Your task to perform on an android device: Find coffee shops on Maps Image 0: 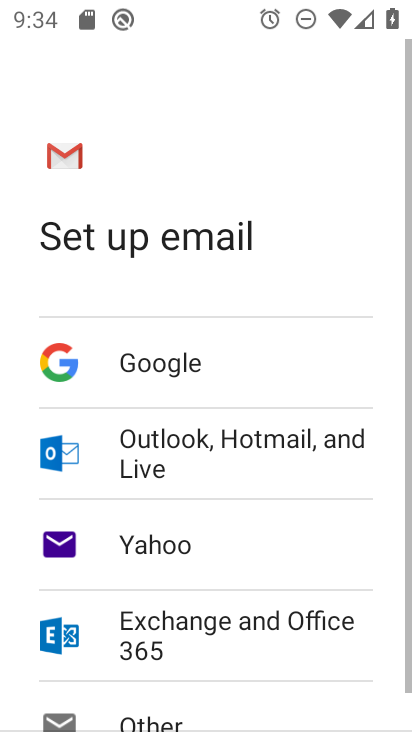
Step 0: press home button
Your task to perform on an android device: Find coffee shops on Maps Image 1: 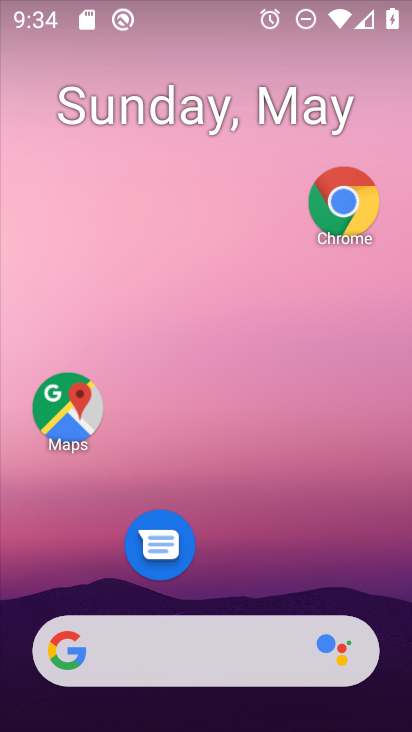
Step 1: click (58, 391)
Your task to perform on an android device: Find coffee shops on Maps Image 2: 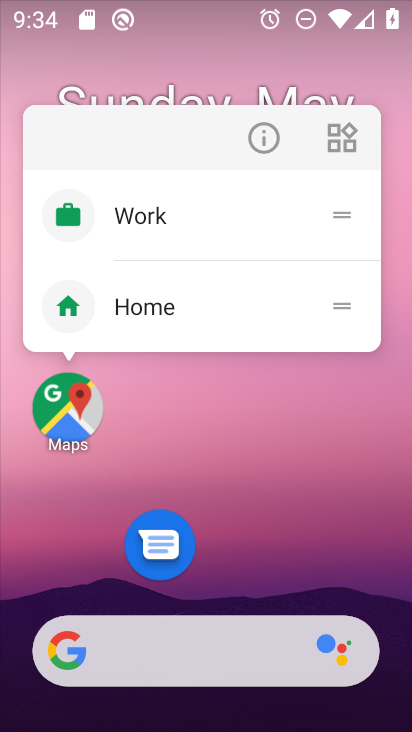
Step 2: click (58, 390)
Your task to perform on an android device: Find coffee shops on Maps Image 3: 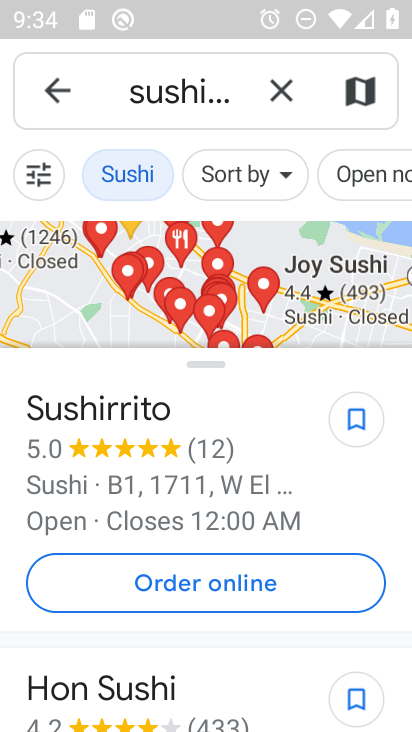
Step 3: click (289, 87)
Your task to perform on an android device: Find coffee shops on Maps Image 4: 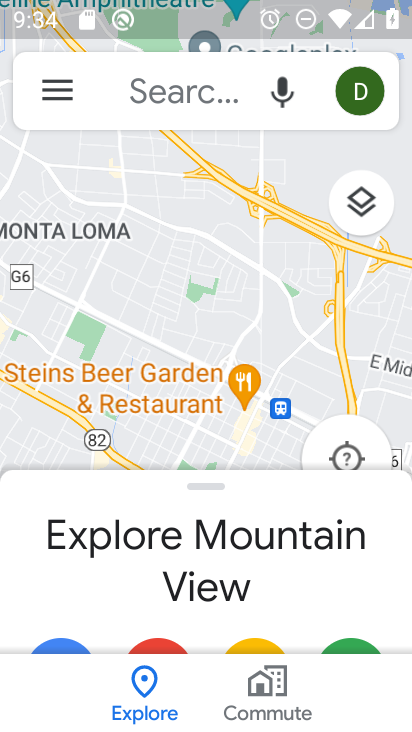
Step 4: click (205, 93)
Your task to perform on an android device: Find coffee shops on Maps Image 5: 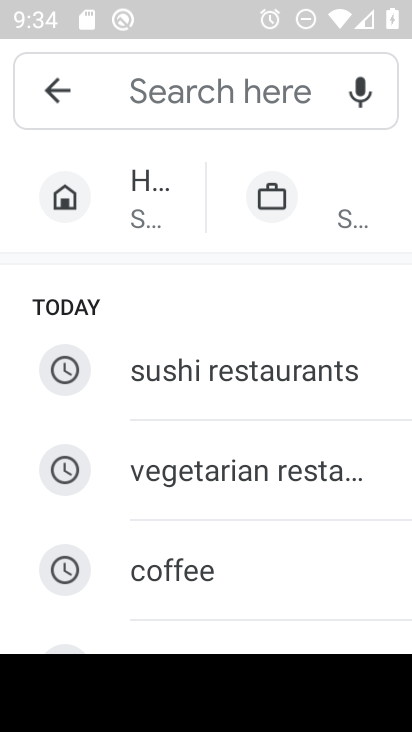
Step 5: type "coffee shop"
Your task to perform on an android device: Find coffee shops on Maps Image 6: 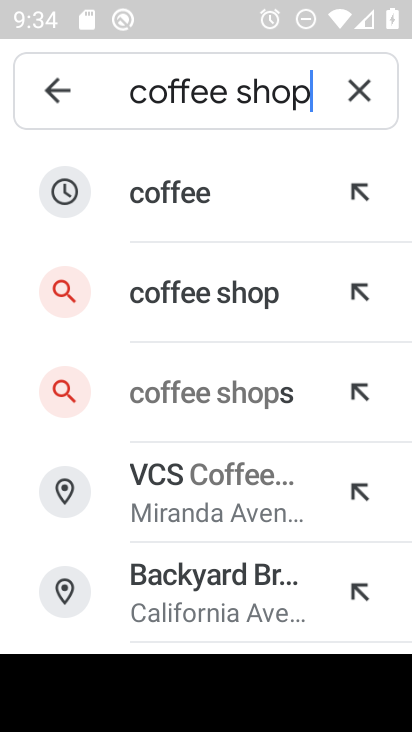
Step 6: click (203, 295)
Your task to perform on an android device: Find coffee shops on Maps Image 7: 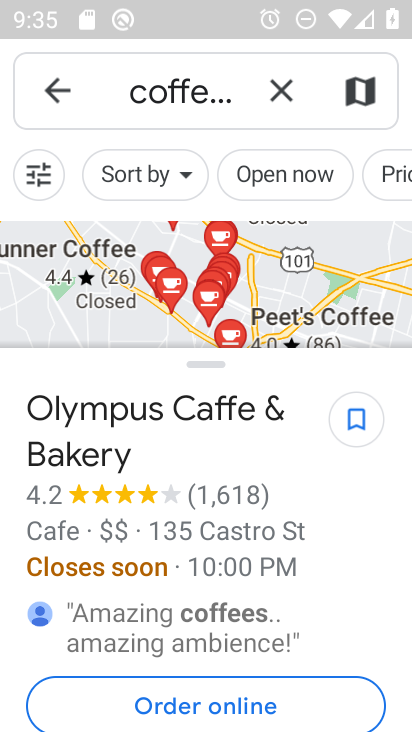
Step 7: task complete